Your task to perform on an android device: Open Maps and search for coffee Image 0: 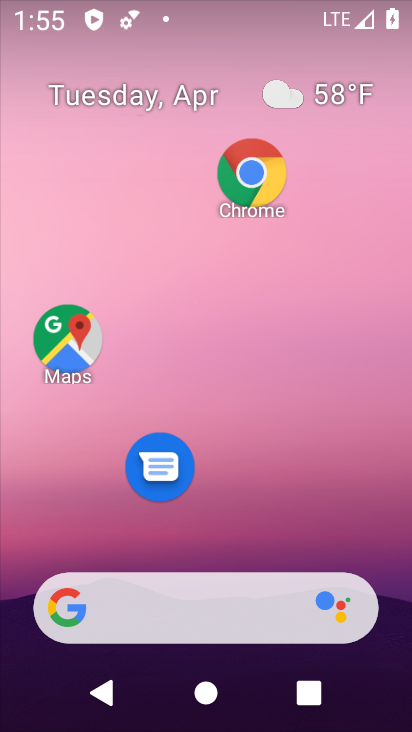
Step 0: drag from (130, 513) to (280, 270)
Your task to perform on an android device: Open Maps and search for coffee Image 1: 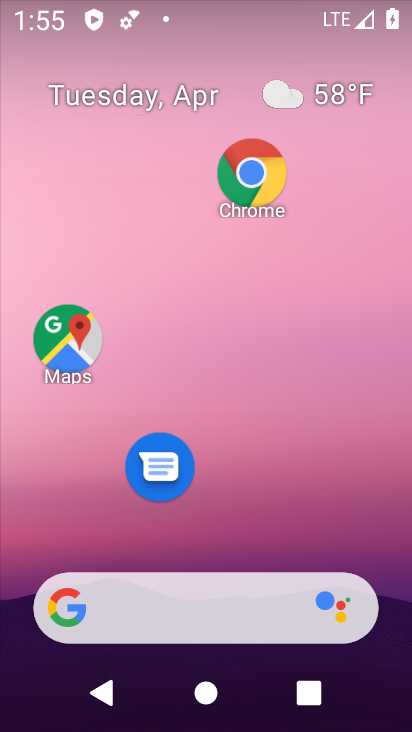
Step 1: drag from (340, 536) to (358, 29)
Your task to perform on an android device: Open Maps and search for coffee Image 2: 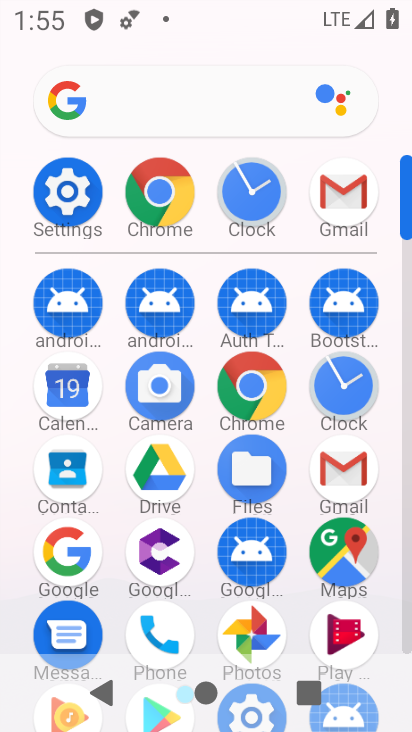
Step 2: click (350, 567)
Your task to perform on an android device: Open Maps and search for coffee Image 3: 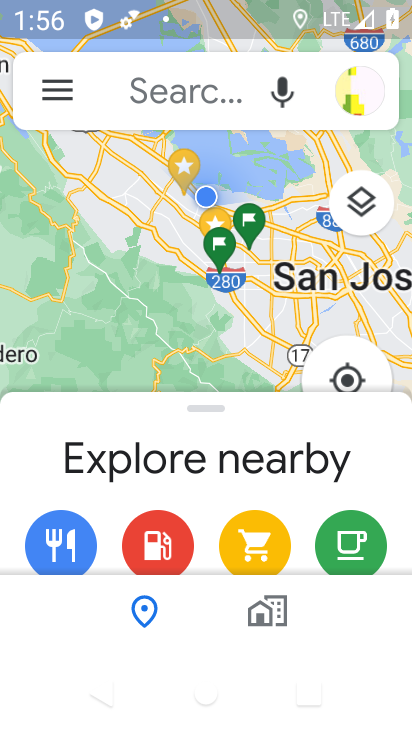
Step 3: click (234, 84)
Your task to perform on an android device: Open Maps and search for coffee Image 4: 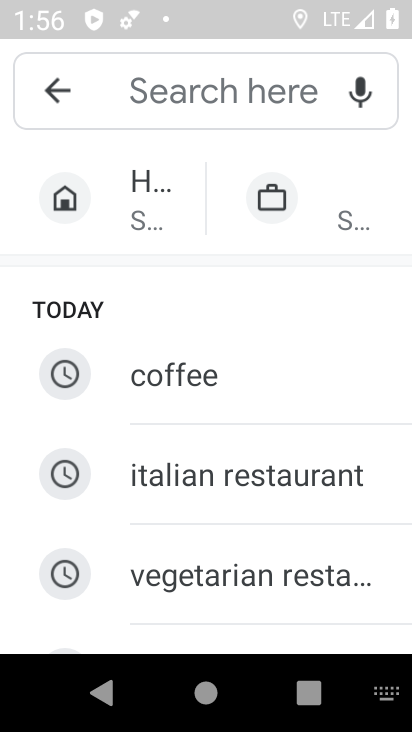
Step 4: click (166, 362)
Your task to perform on an android device: Open Maps and search for coffee Image 5: 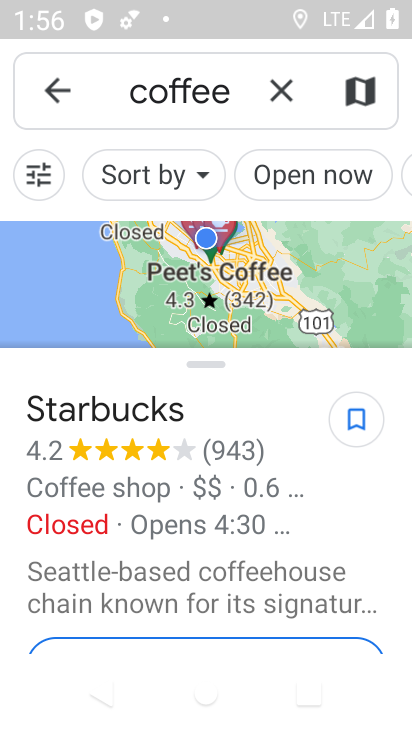
Step 5: task complete